Your task to perform on an android device: Is it going to rain tomorrow? Image 0: 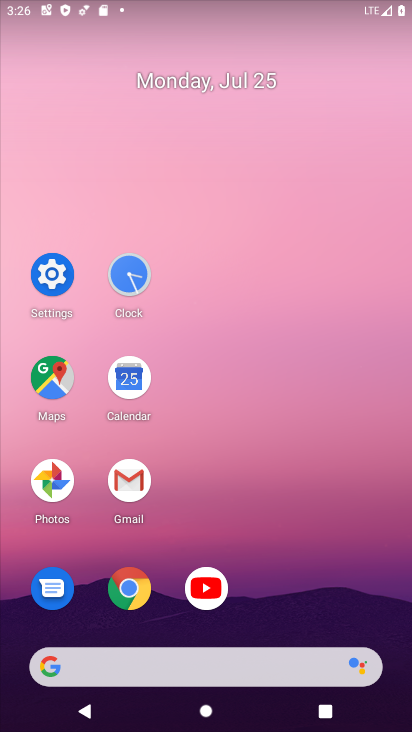
Step 0: click (198, 659)
Your task to perform on an android device: Is it going to rain tomorrow? Image 1: 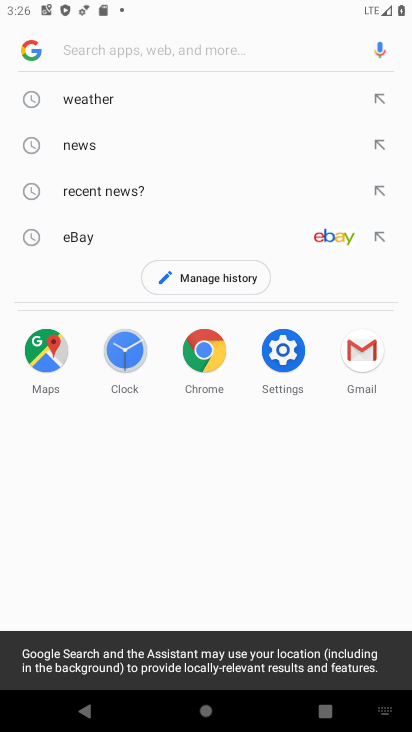
Step 1: click (86, 99)
Your task to perform on an android device: Is it going to rain tomorrow? Image 2: 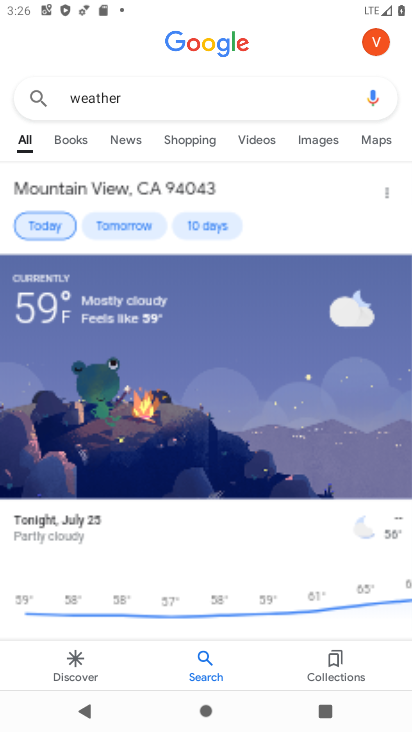
Step 2: click (120, 224)
Your task to perform on an android device: Is it going to rain tomorrow? Image 3: 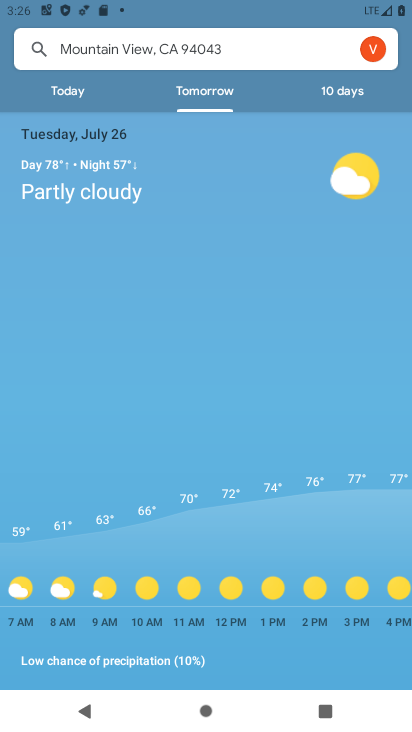
Step 3: task complete